Your task to perform on an android device: set default search engine in the chrome app Image 0: 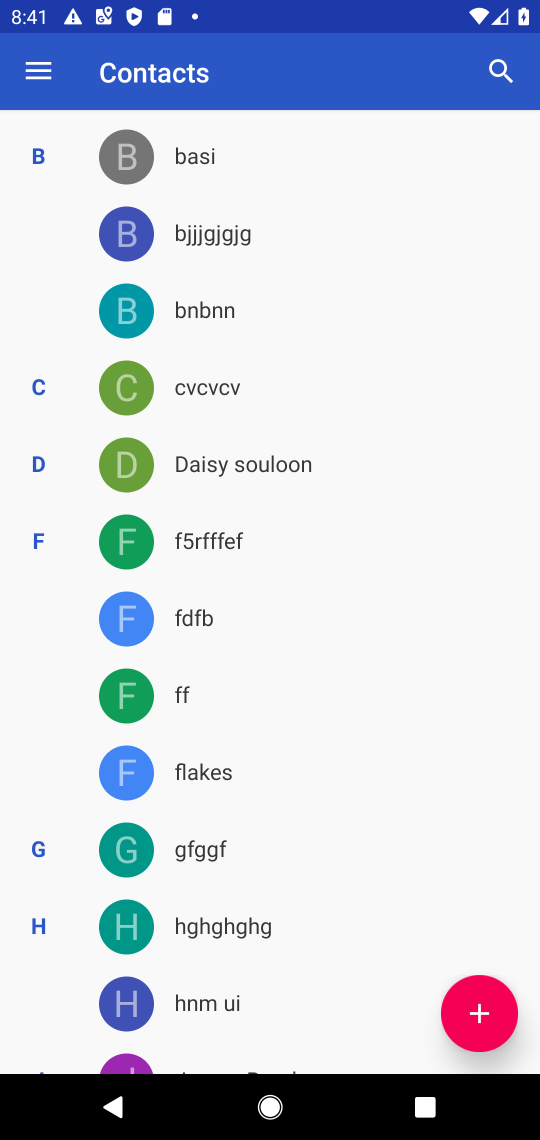
Step 0: press home button
Your task to perform on an android device: set default search engine in the chrome app Image 1: 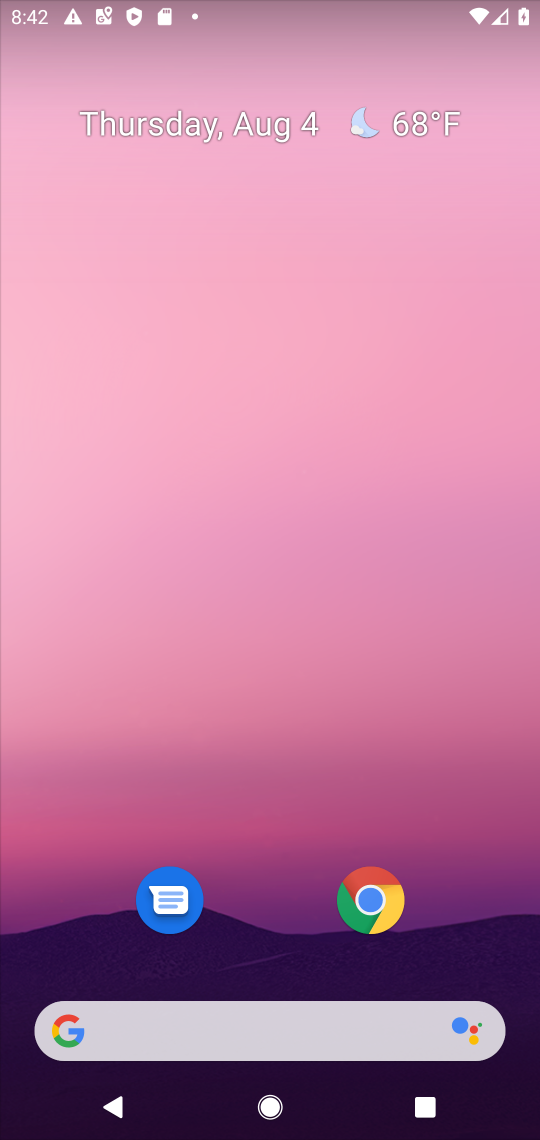
Step 1: click (368, 904)
Your task to perform on an android device: set default search engine in the chrome app Image 2: 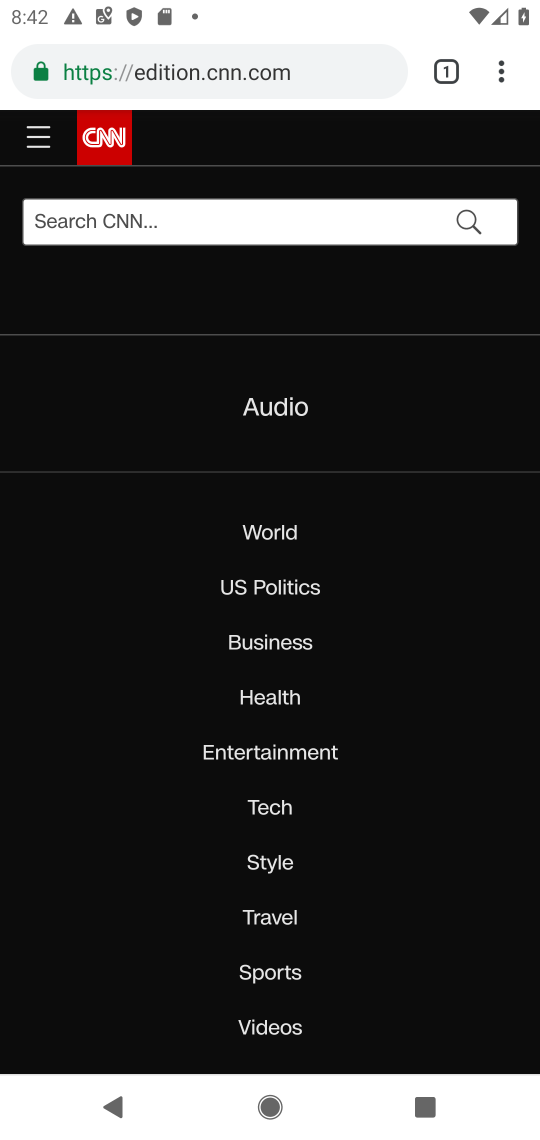
Step 2: click (498, 79)
Your task to perform on an android device: set default search engine in the chrome app Image 3: 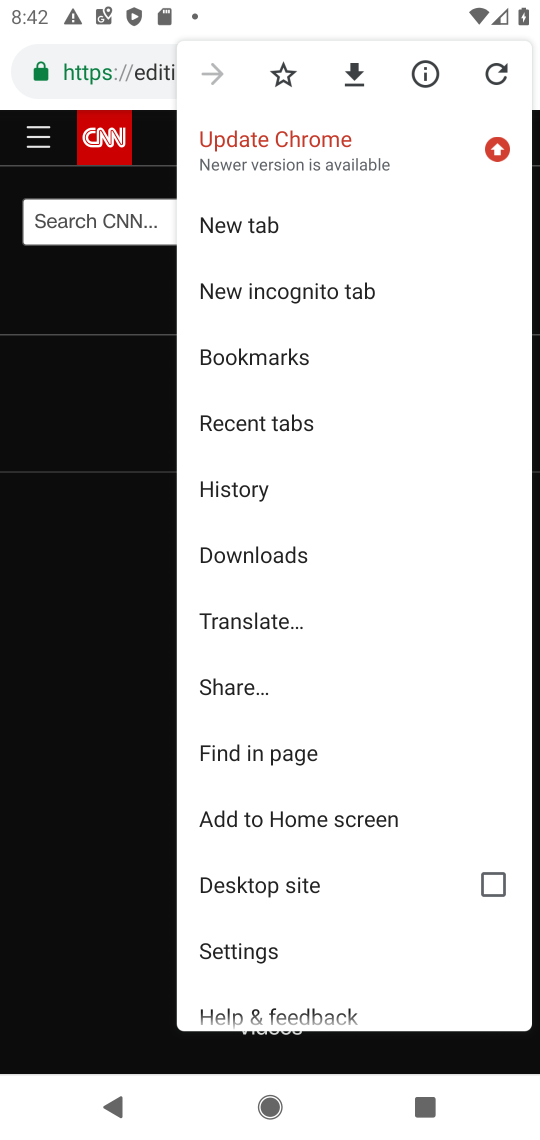
Step 3: click (259, 947)
Your task to perform on an android device: set default search engine in the chrome app Image 4: 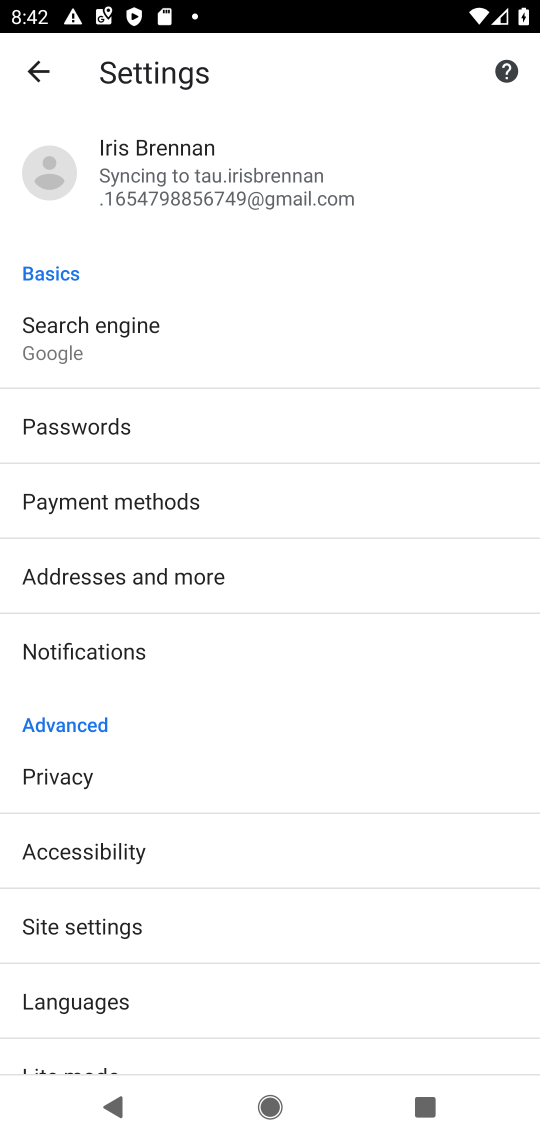
Step 4: click (144, 343)
Your task to perform on an android device: set default search engine in the chrome app Image 5: 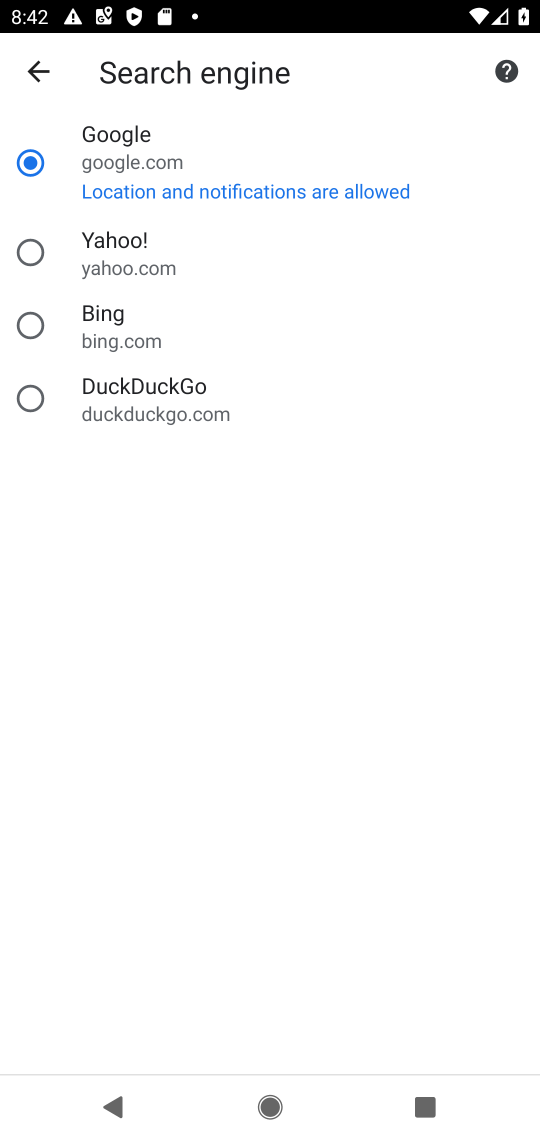
Step 5: click (26, 246)
Your task to perform on an android device: set default search engine in the chrome app Image 6: 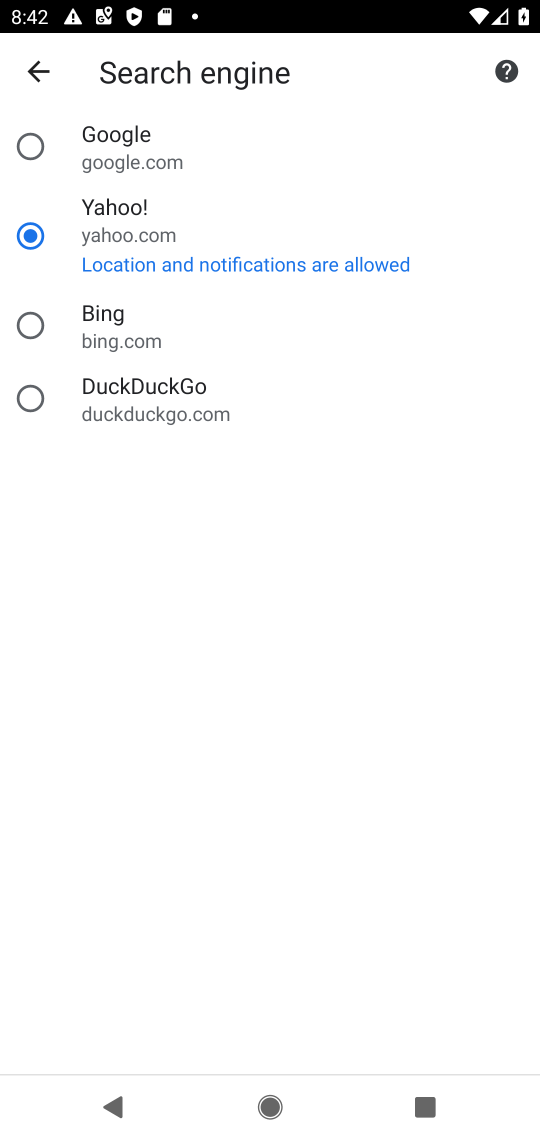
Step 6: task complete